Your task to perform on an android device: Toggle the flashlight Image 0: 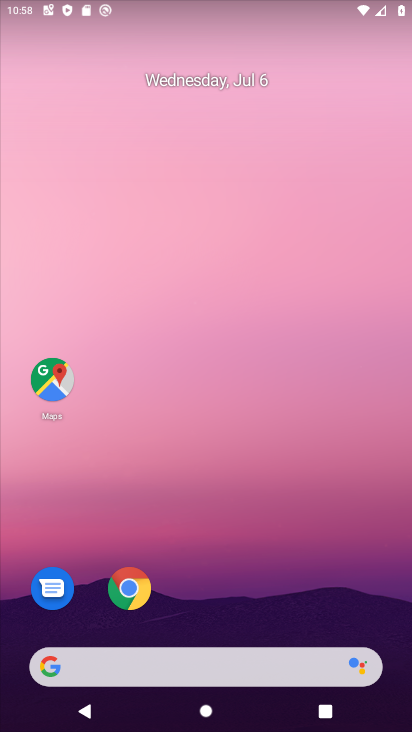
Step 0: drag from (239, 631) to (202, 273)
Your task to perform on an android device: Toggle the flashlight Image 1: 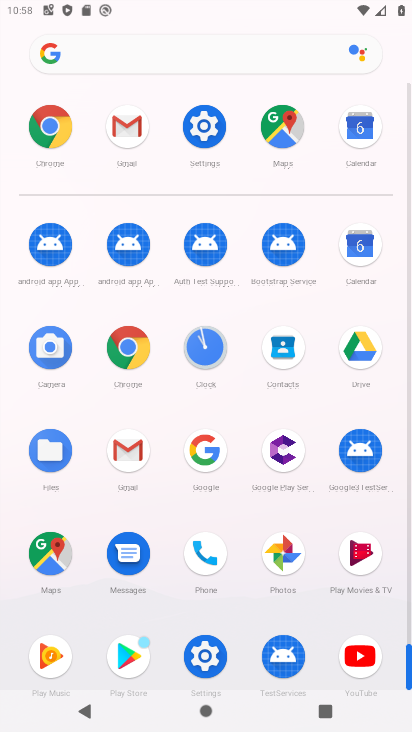
Step 1: click (202, 100)
Your task to perform on an android device: Toggle the flashlight Image 2: 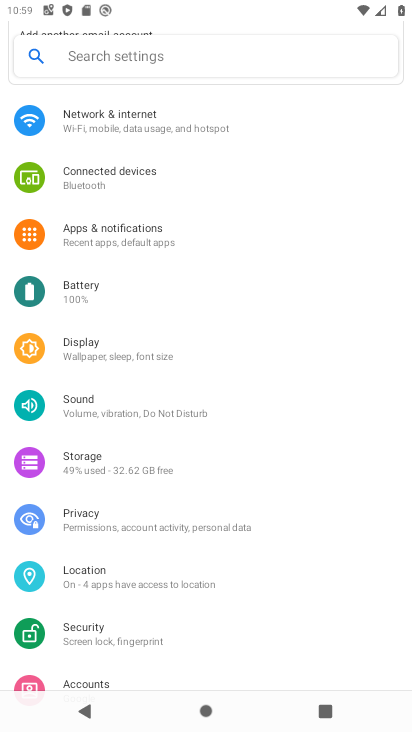
Step 2: task complete